Your task to perform on an android device: Clear all items from cart on costco. Image 0: 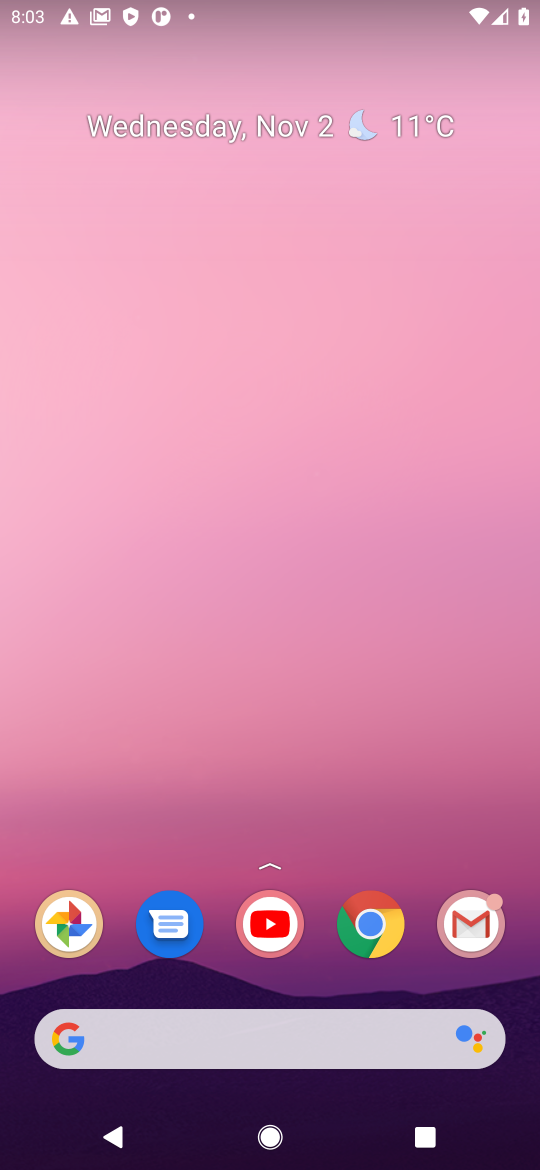
Step 0: click (338, 916)
Your task to perform on an android device: Clear all items from cart on costco. Image 1: 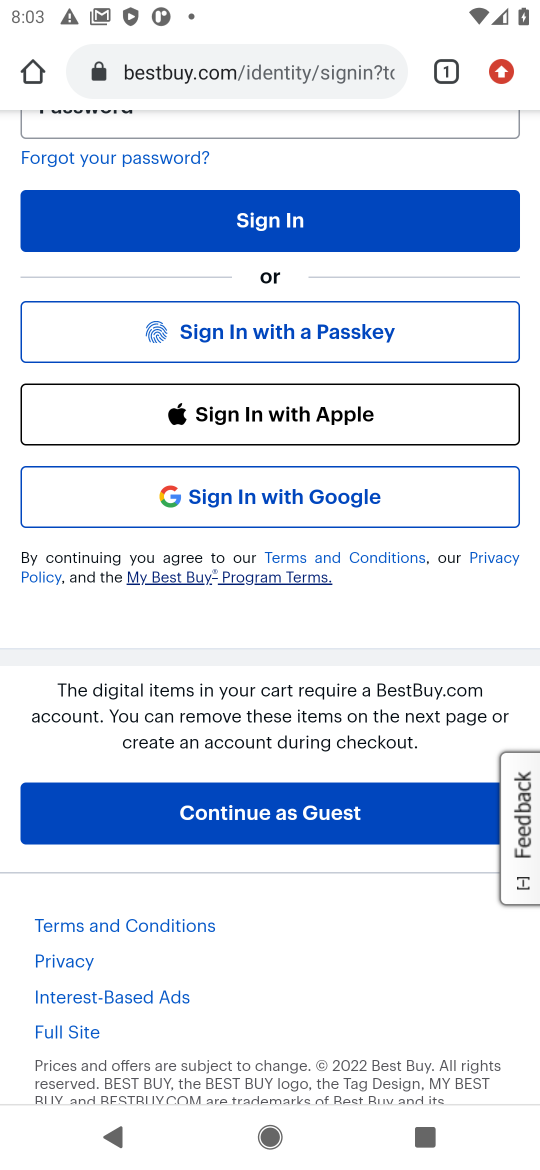
Step 1: click (172, 67)
Your task to perform on an android device: Clear all items from cart on costco. Image 2: 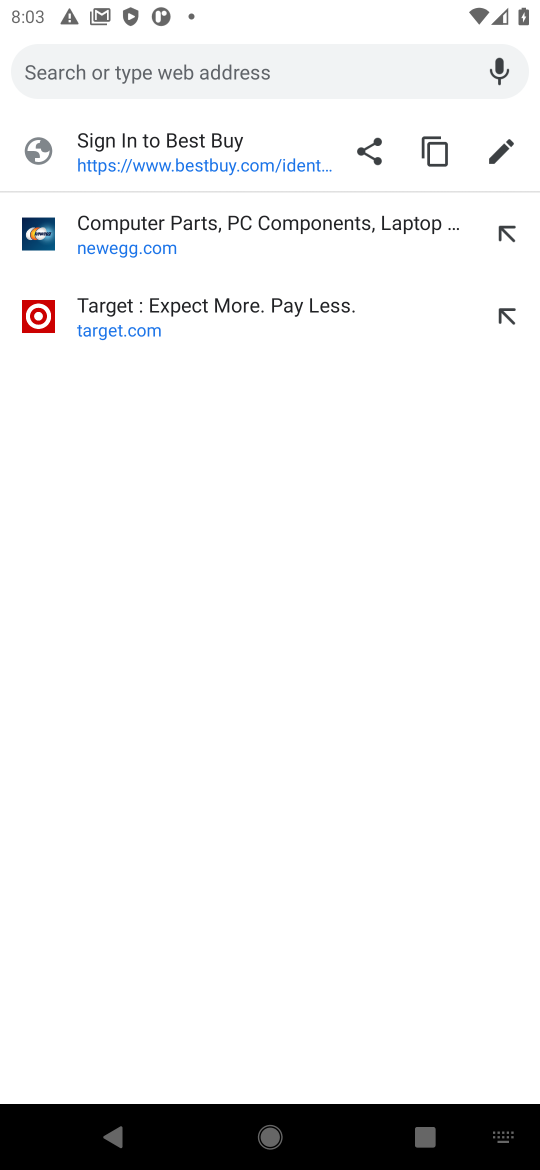
Step 2: type "costco"
Your task to perform on an android device: Clear all items from cart on costco. Image 3: 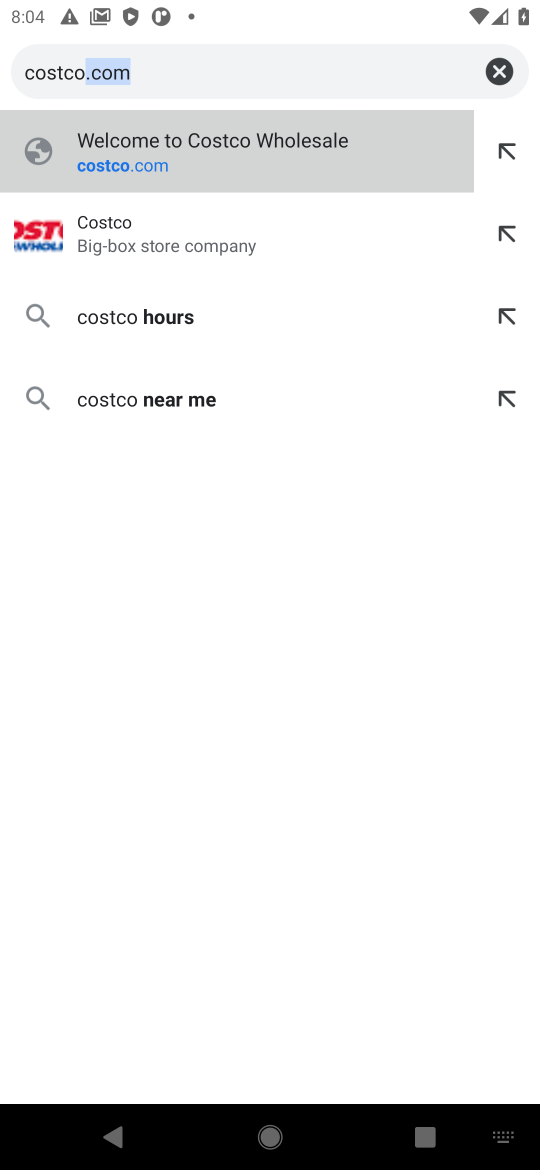
Step 3: type ""
Your task to perform on an android device: Clear all items from cart on costco. Image 4: 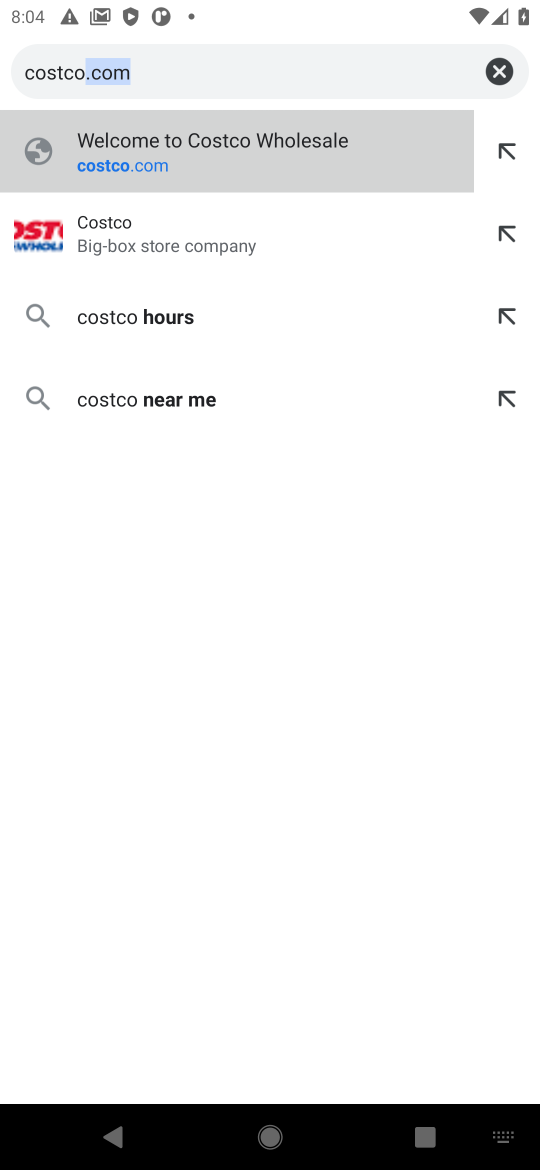
Step 4: click (210, 241)
Your task to perform on an android device: Clear all items from cart on costco. Image 5: 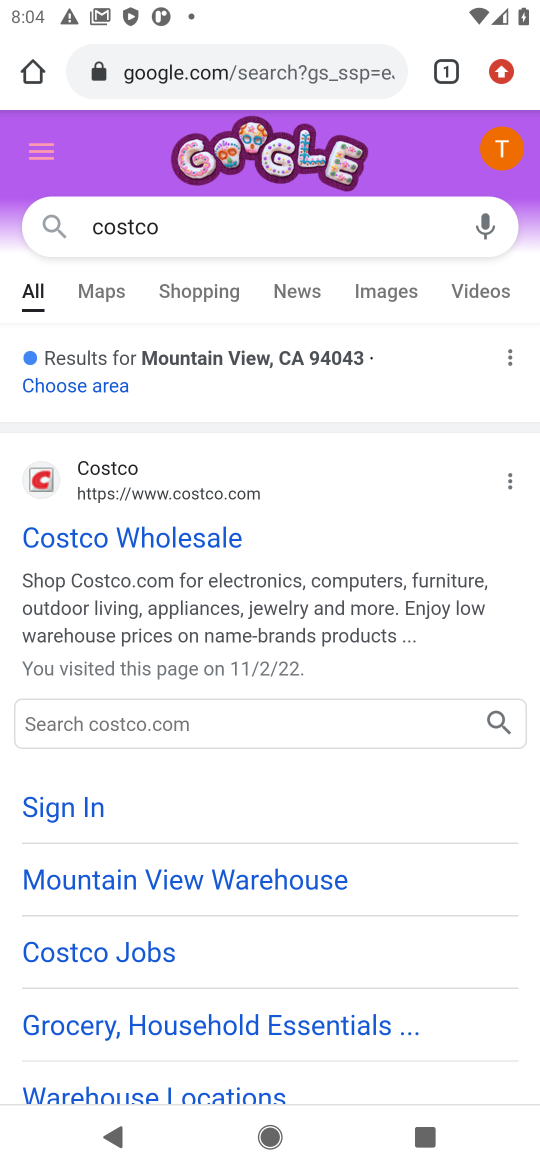
Step 5: click (184, 540)
Your task to perform on an android device: Clear all items from cart on costco. Image 6: 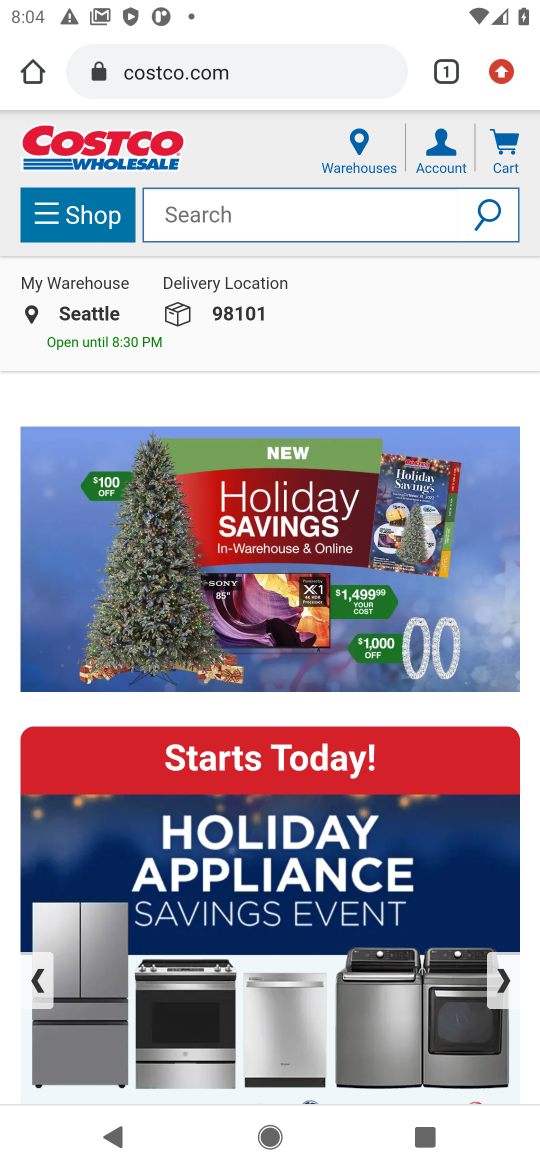
Step 6: click (501, 143)
Your task to perform on an android device: Clear all items from cart on costco. Image 7: 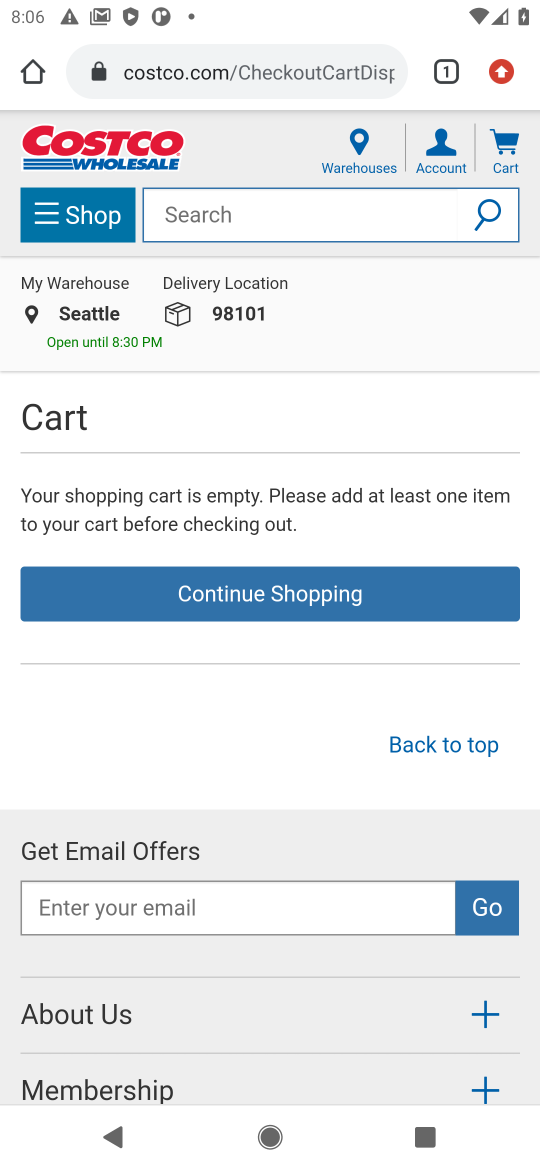
Step 7: task complete